Your task to perform on an android device: Search for seafood restaurants on Google Maps Image 0: 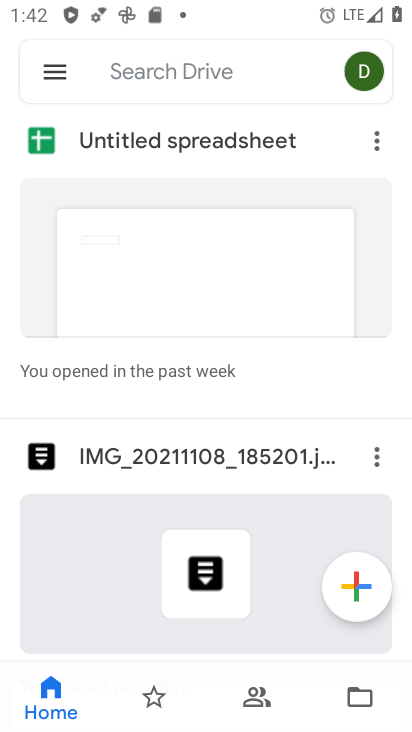
Step 0: press home button
Your task to perform on an android device: Search for seafood restaurants on Google Maps Image 1: 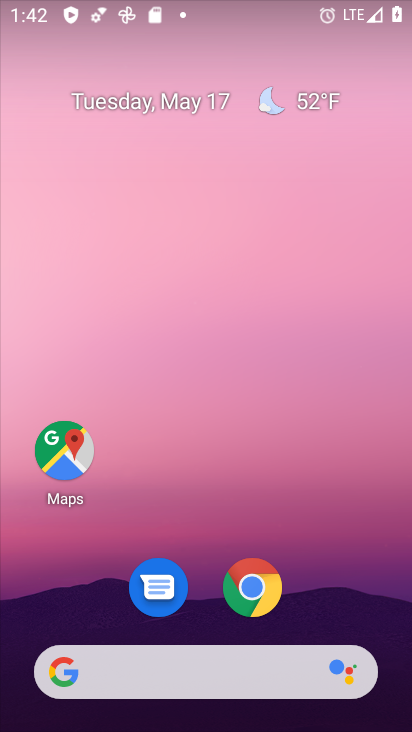
Step 1: drag from (357, 584) to (295, 191)
Your task to perform on an android device: Search for seafood restaurants on Google Maps Image 2: 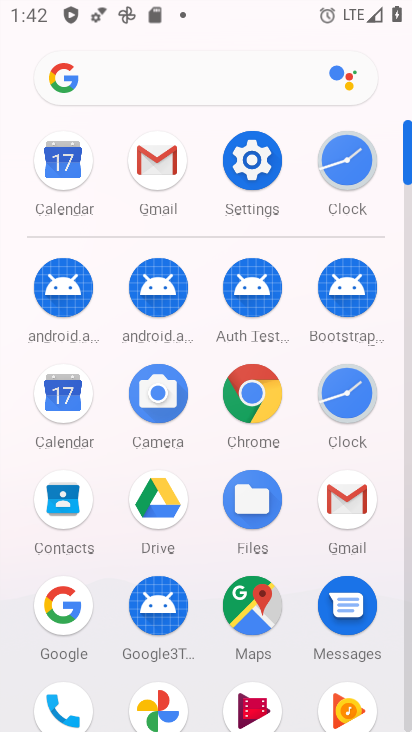
Step 2: click (252, 627)
Your task to perform on an android device: Search for seafood restaurants on Google Maps Image 3: 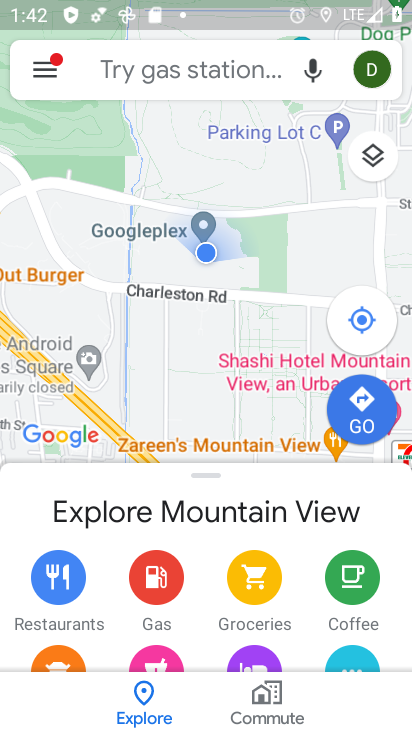
Step 3: click (169, 87)
Your task to perform on an android device: Search for seafood restaurants on Google Maps Image 4: 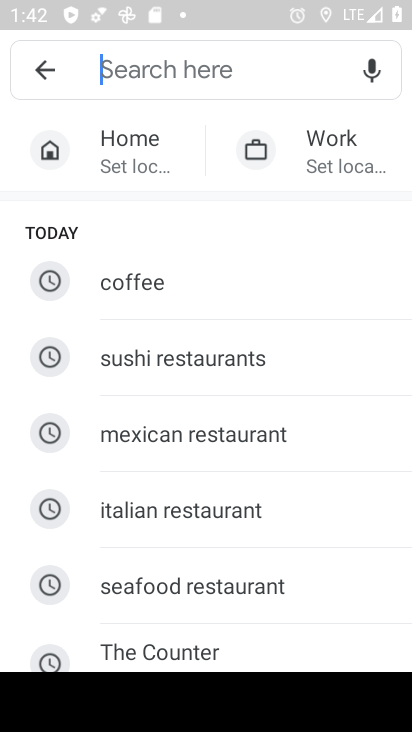
Step 4: click (219, 586)
Your task to perform on an android device: Search for seafood restaurants on Google Maps Image 5: 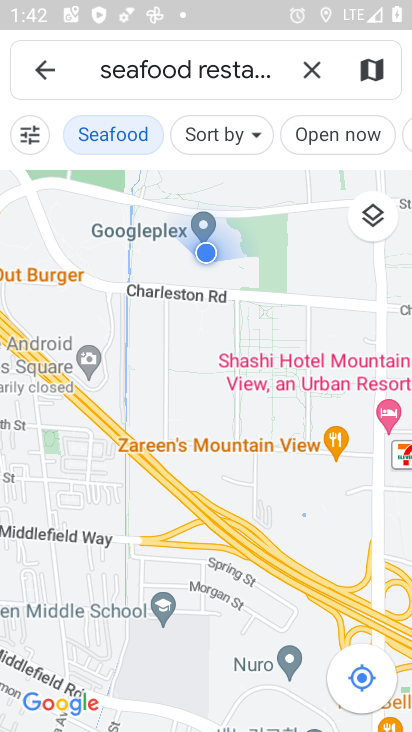
Step 5: task complete